Your task to perform on an android device: Open Google Maps and go to "Timeline" Image 0: 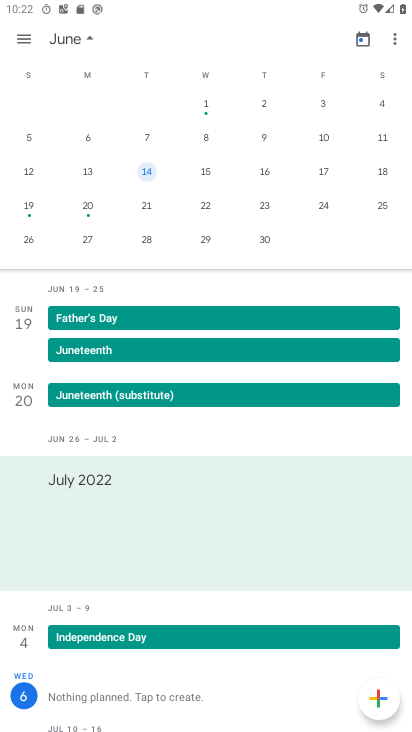
Step 0: press home button
Your task to perform on an android device: Open Google Maps and go to "Timeline" Image 1: 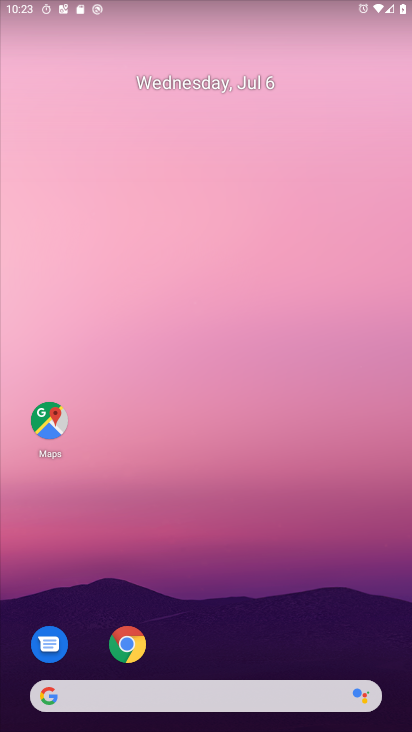
Step 1: drag from (222, 601) to (352, 86)
Your task to perform on an android device: Open Google Maps and go to "Timeline" Image 2: 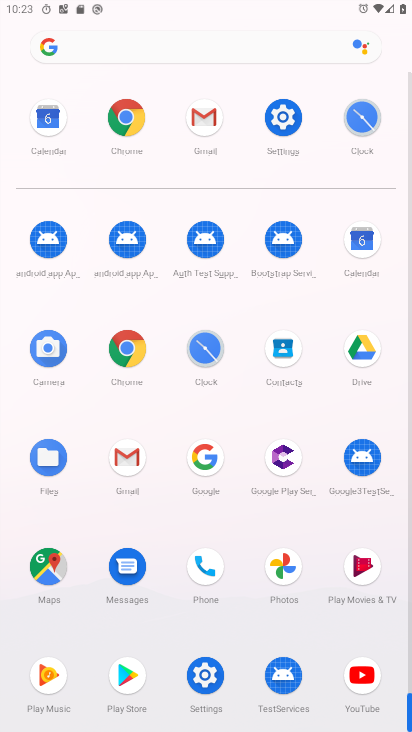
Step 2: drag from (174, 516) to (254, 206)
Your task to perform on an android device: Open Google Maps and go to "Timeline" Image 3: 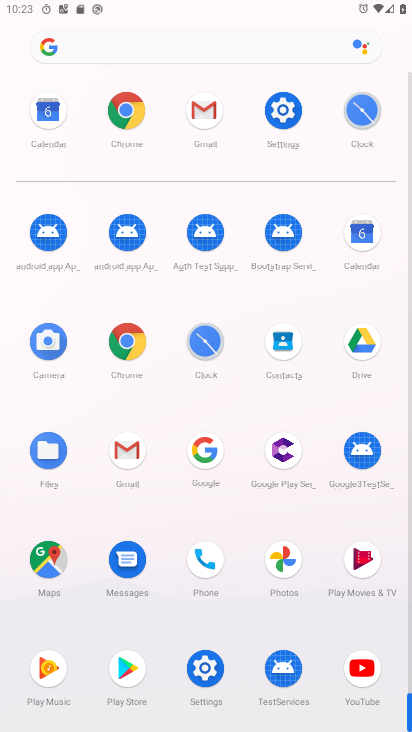
Step 3: click (49, 576)
Your task to perform on an android device: Open Google Maps and go to "Timeline" Image 4: 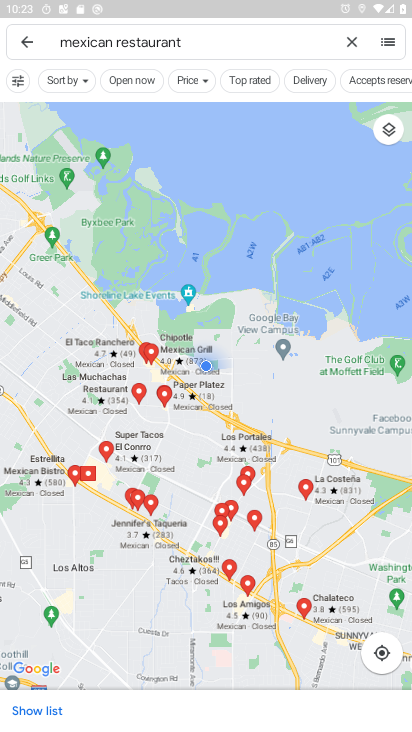
Step 4: click (21, 49)
Your task to perform on an android device: Open Google Maps and go to "Timeline" Image 5: 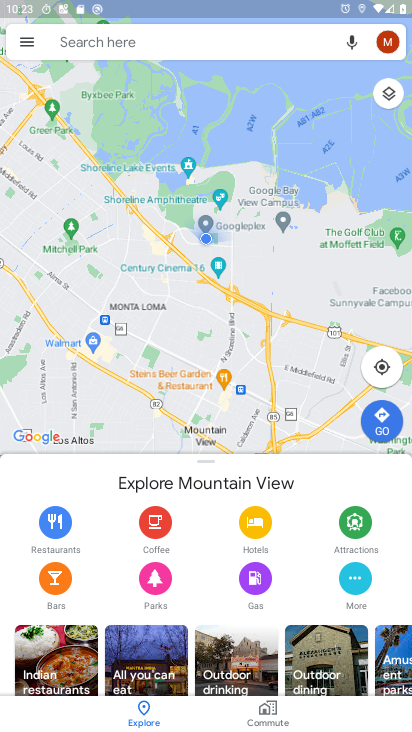
Step 5: click (22, 44)
Your task to perform on an android device: Open Google Maps and go to "Timeline" Image 6: 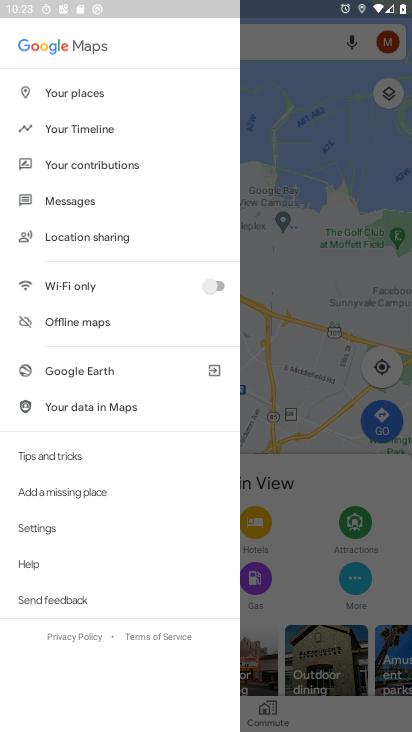
Step 6: click (99, 132)
Your task to perform on an android device: Open Google Maps and go to "Timeline" Image 7: 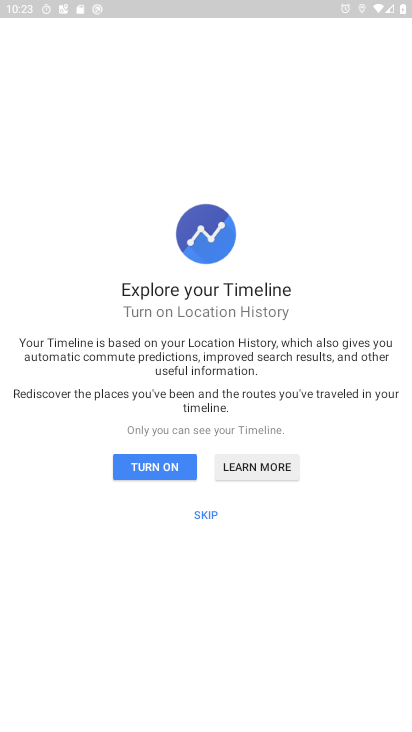
Step 7: click (197, 506)
Your task to perform on an android device: Open Google Maps and go to "Timeline" Image 8: 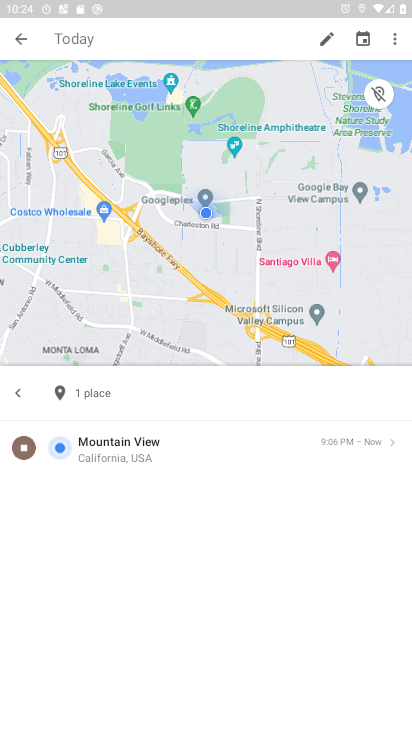
Step 8: task complete